Your task to perform on an android device: turn notification dots on Image 0: 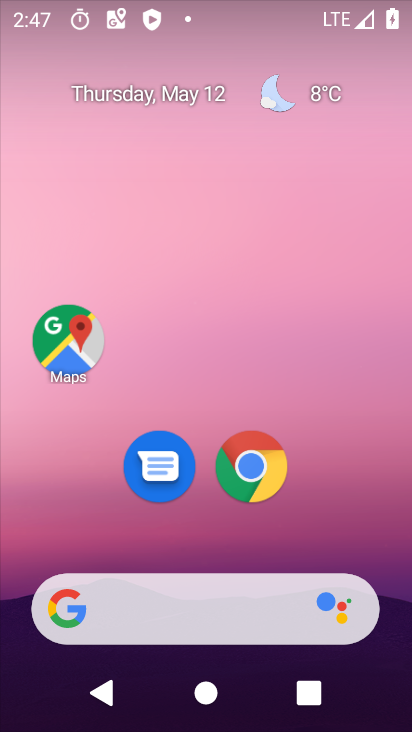
Step 0: drag from (298, 436) to (256, 213)
Your task to perform on an android device: turn notification dots on Image 1: 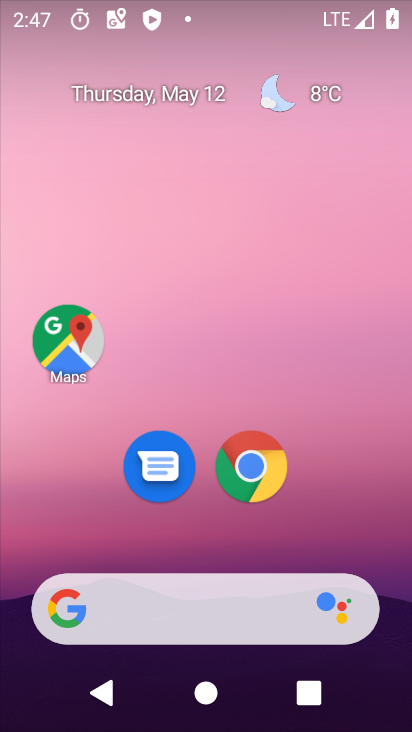
Step 1: drag from (278, 542) to (236, 156)
Your task to perform on an android device: turn notification dots on Image 2: 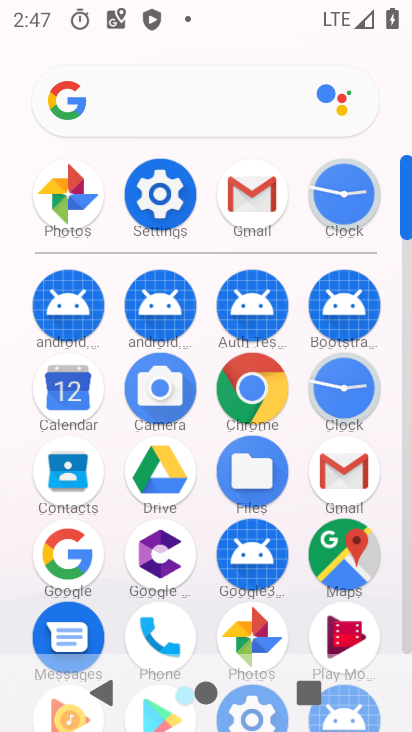
Step 2: click (166, 194)
Your task to perform on an android device: turn notification dots on Image 3: 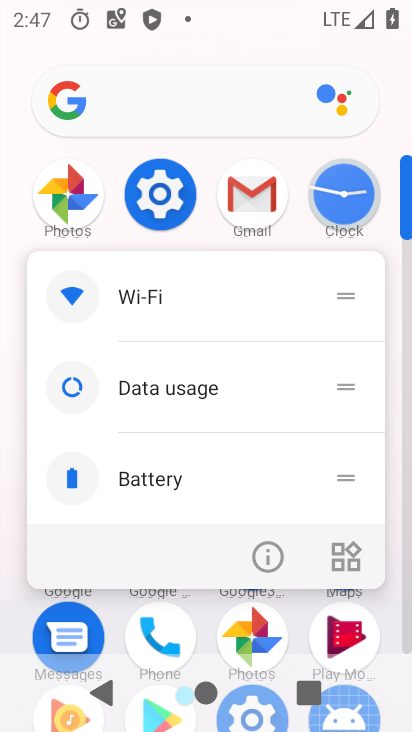
Step 3: click (155, 208)
Your task to perform on an android device: turn notification dots on Image 4: 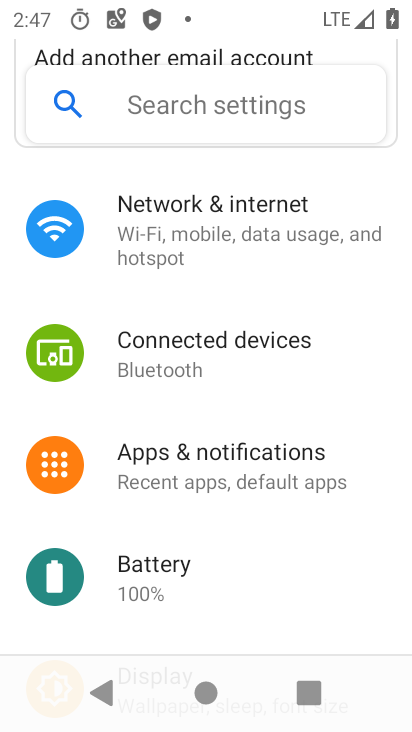
Step 4: click (172, 468)
Your task to perform on an android device: turn notification dots on Image 5: 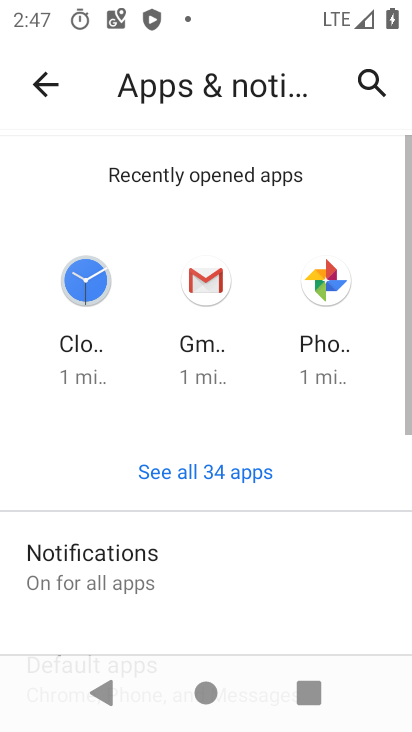
Step 5: drag from (218, 632) to (193, 337)
Your task to perform on an android device: turn notification dots on Image 6: 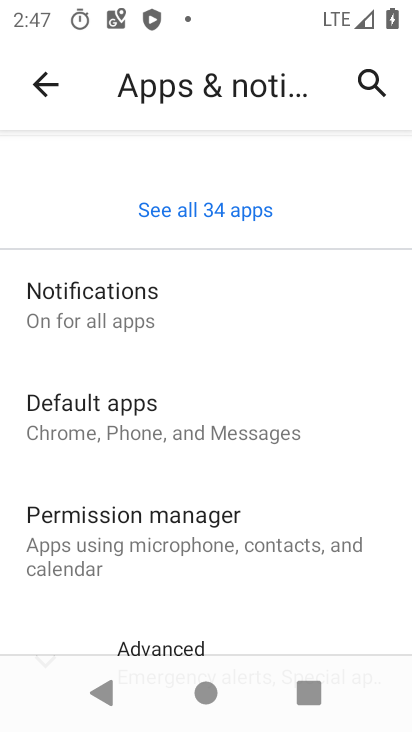
Step 6: click (124, 307)
Your task to perform on an android device: turn notification dots on Image 7: 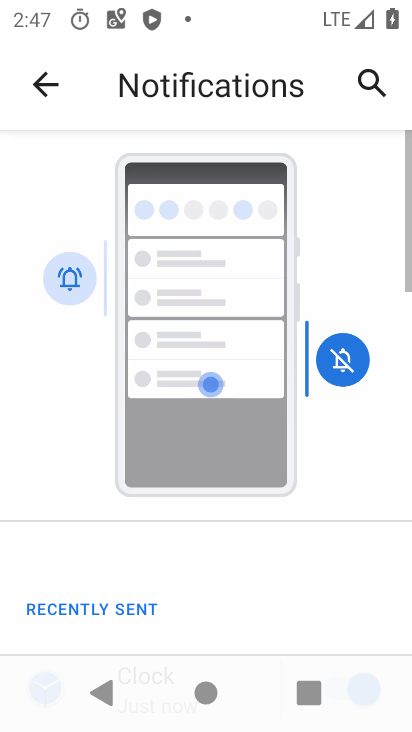
Step 7: drag from (218, 586) to (179, 273)
Your task to perform on an android device: turn notification dots on Image 8: 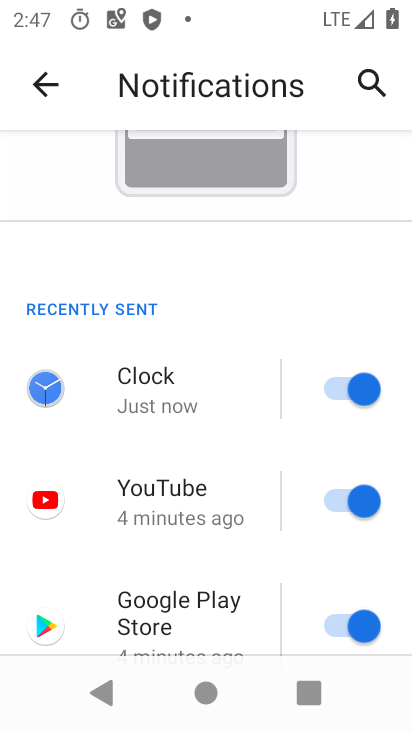
Step 8: drag from (208, 590) to (176, 260)
Your task to perform on an android device: turn notification dots on Image 9: 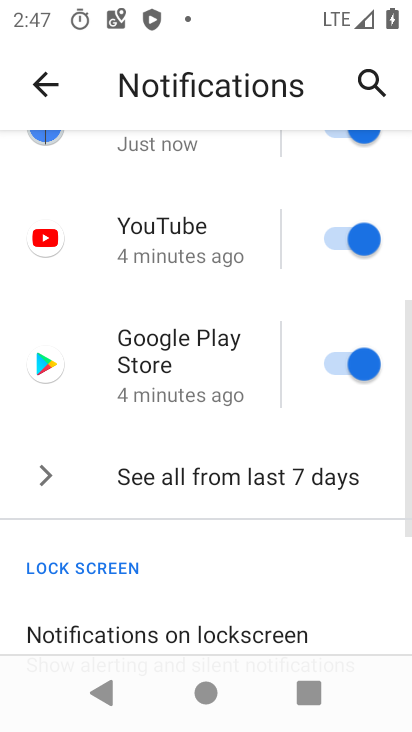
Step 9: drag from (174, 560) to (170, 271)
Your task to perform on an android device: turn notification dots on Image 10: 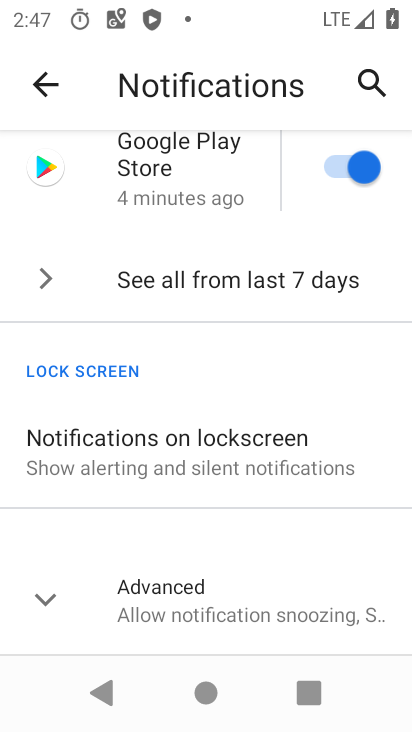
Step 10: click (174, 603)
Your task to perform on an android device: turn notification dots on Image 11: 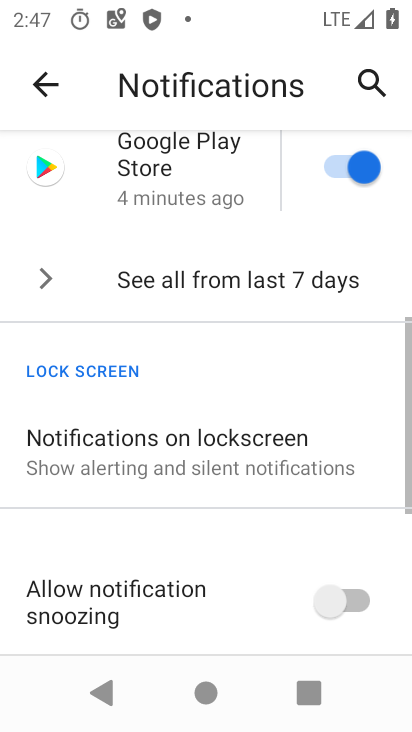
Step 11: task complete